Your task to perform on an android device: Google the capital of Uruguay Image 0: 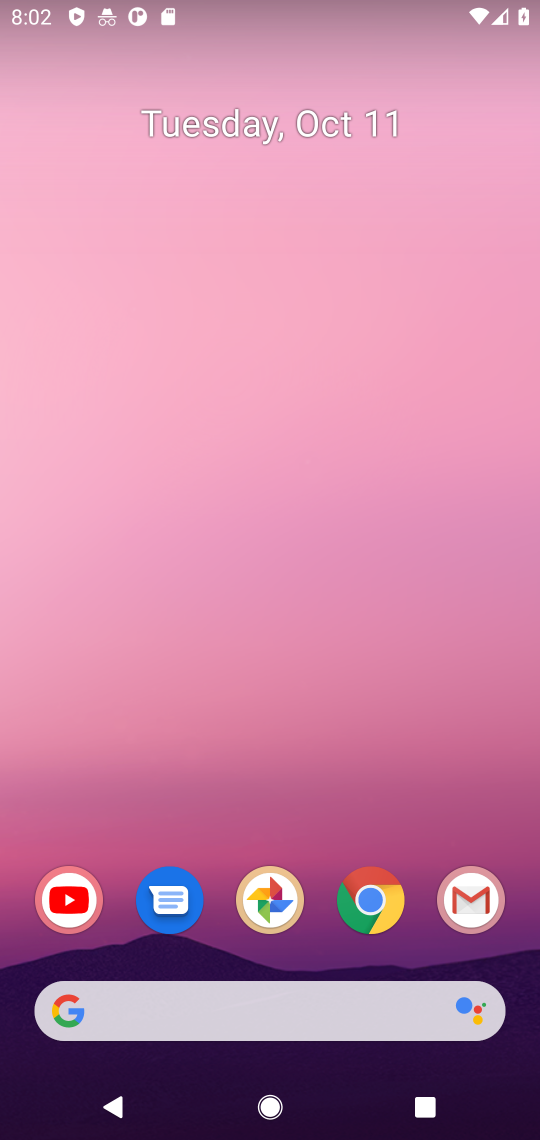
Step 0: click (354, 916)
Your task to perform on an android device: Google the capital of Uruguay Image 1: 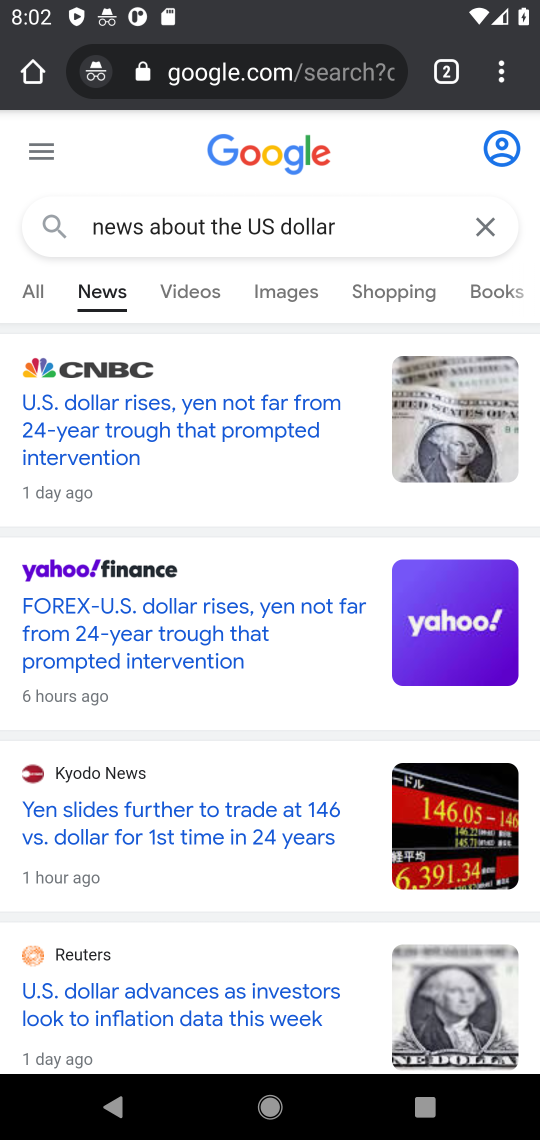
Step 1: click (366, 75)
Your task to perform on an android device: Google the capital of Uruguay Image 2: 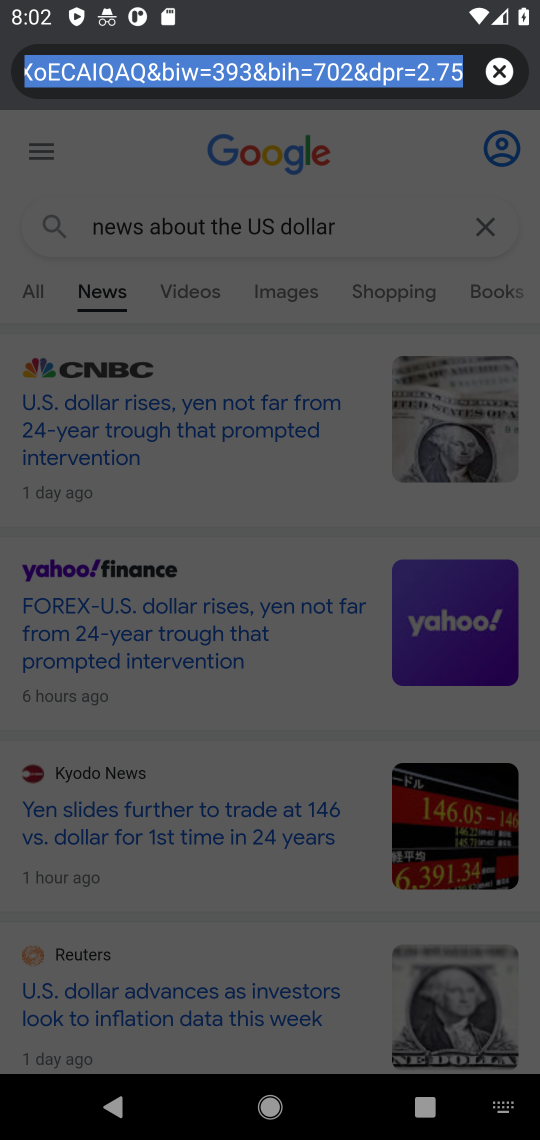
Step 2: type "capital of Uruguay"
Your task to perform on an android device: Google the capital of Uruguay Image 3: 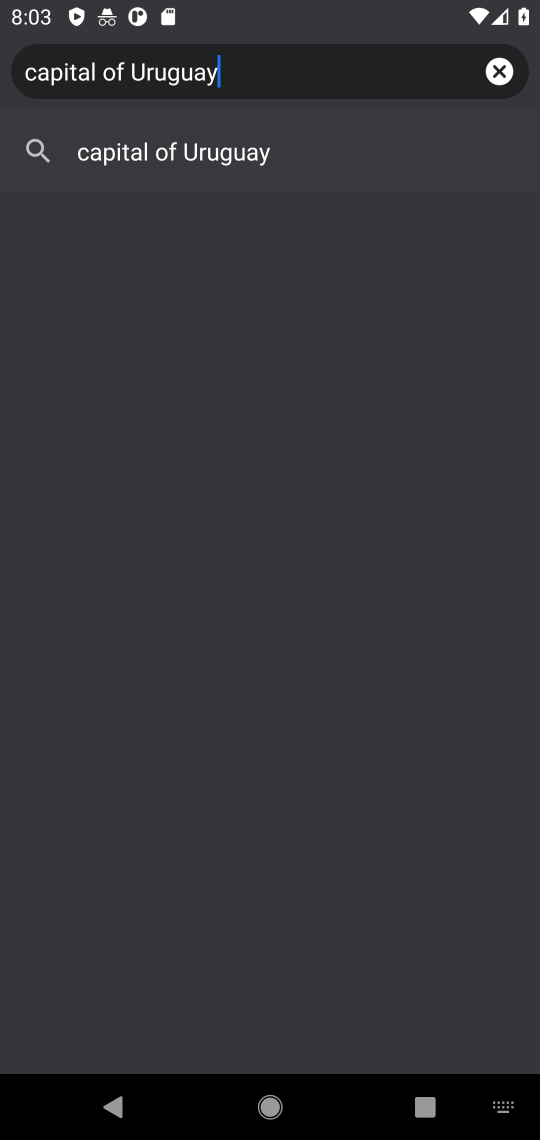
Step 3: click (408, 150)
Your task to perform on an android device: Google the capital of Uruguay Image 4: 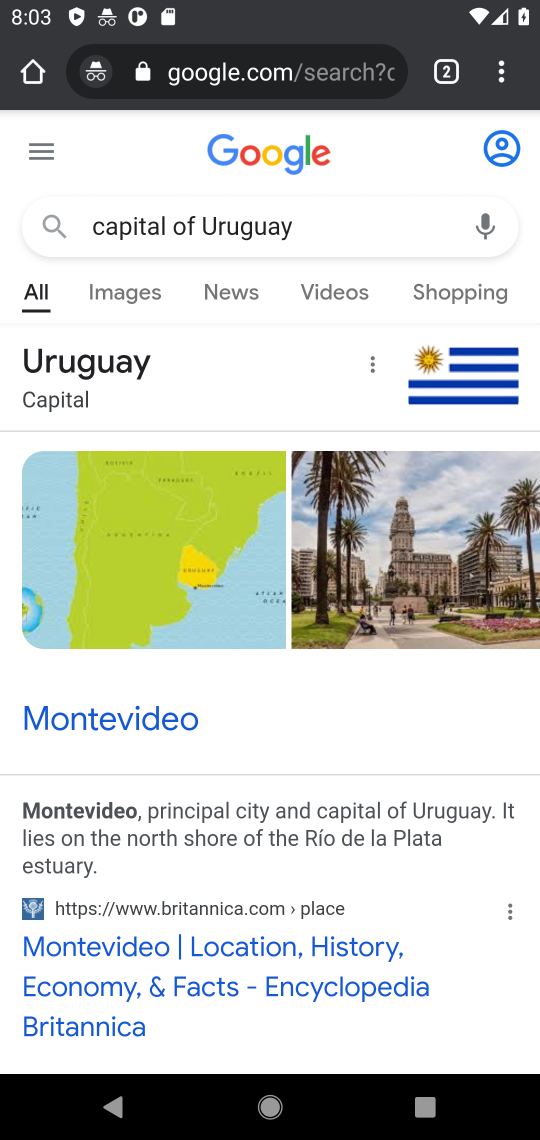
Step 4: task complete